Your task to perform on an android device: Search for top rated sushi restaurants on Maps Image 0: 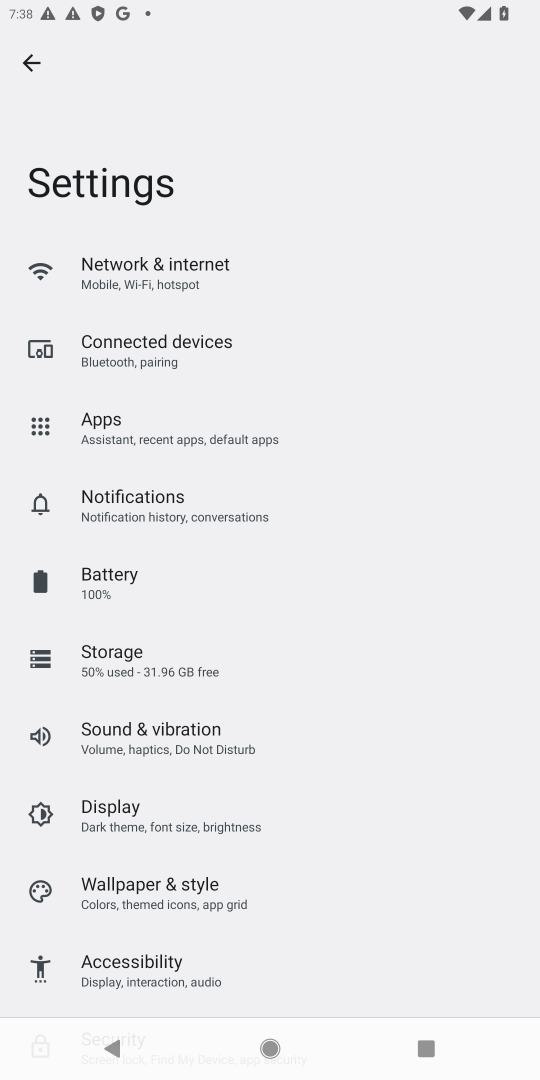
Step 0: press home button
Your task to perform on an android device: Search for top rated sushi restaurants on Maps Image 1: 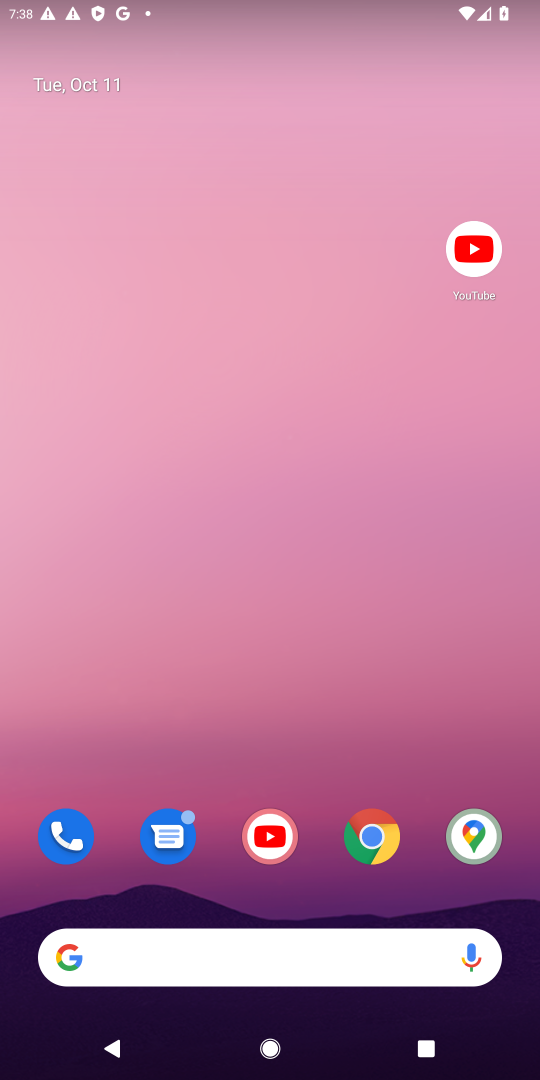
Step 1: drag from (262, 915) to (481, 155)
Your task to perform on an android device: Search for top rated sushi restaurants on Maps Image 2: 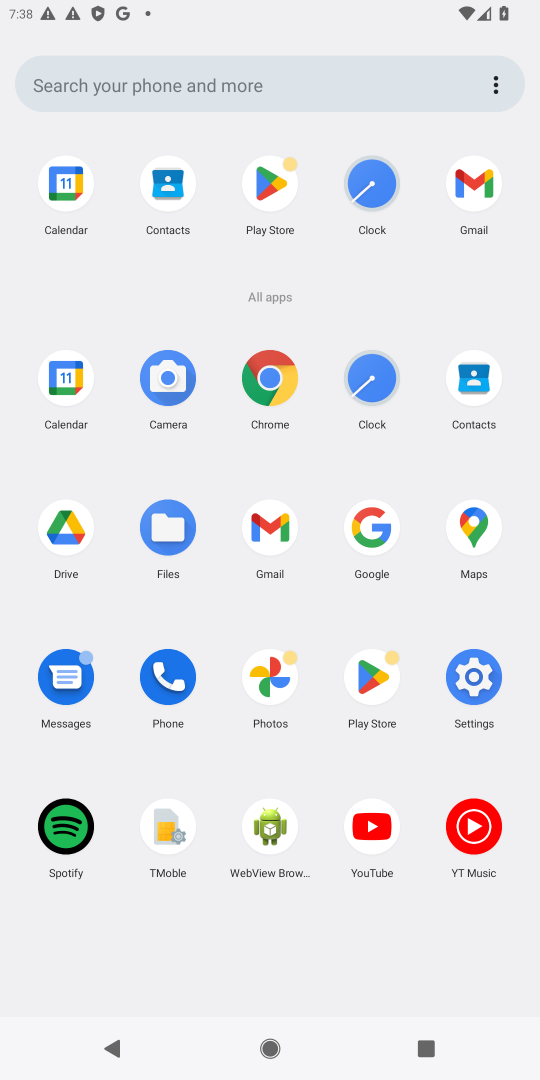
Step 2: click (476, 530)
Your task to perform on an android device: Search for top rated sushi restaurants on Maps Image 3: 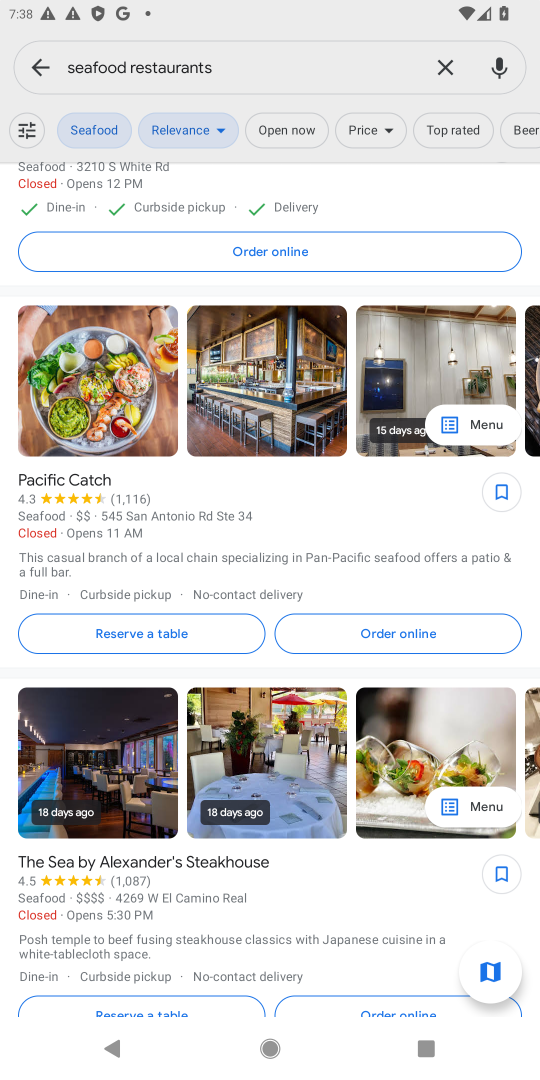
Step 3: click (443, 63)
Your task to perform on an android device: Search for top rated sushi restaurants on Maps Image 4: 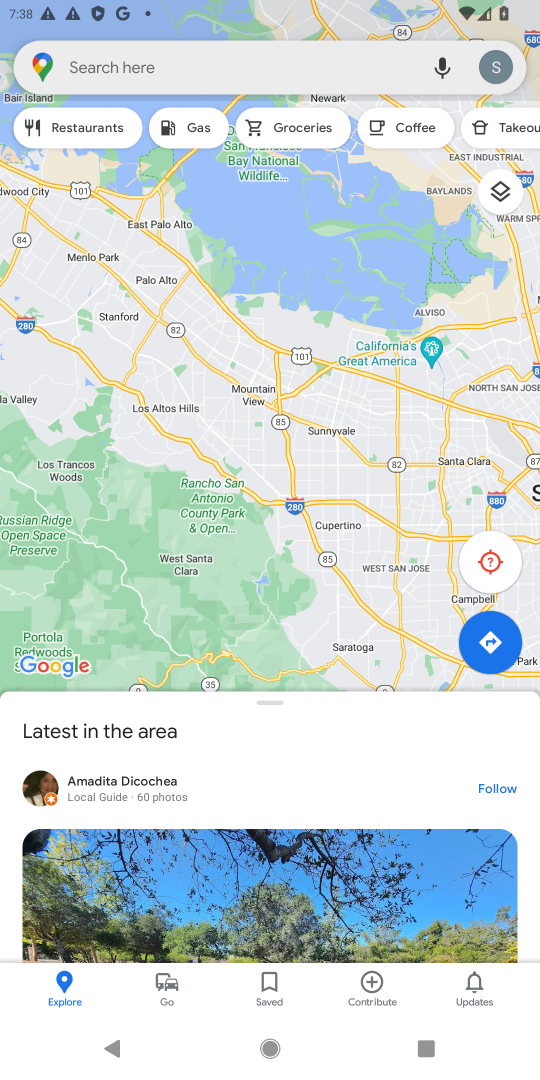
Step 4: click (147, 61)
Your task to perform on an android device: Search for top rated sushi restaurants on Maps Image 5: 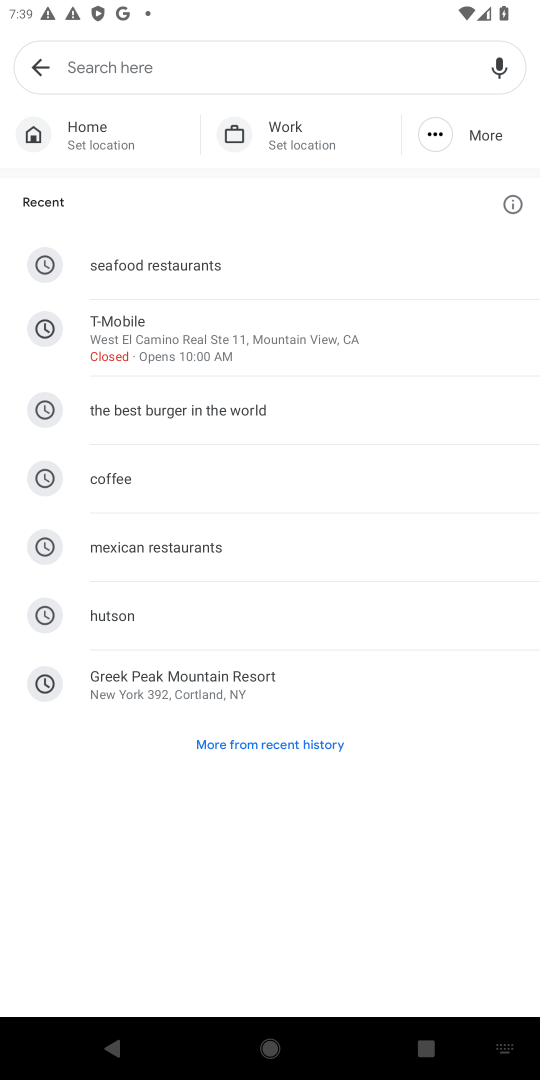
Step 5: type "sushi restaurants"
Your task to perform on an android device: Search for top rated sushi restaurants on Maps Image 6: 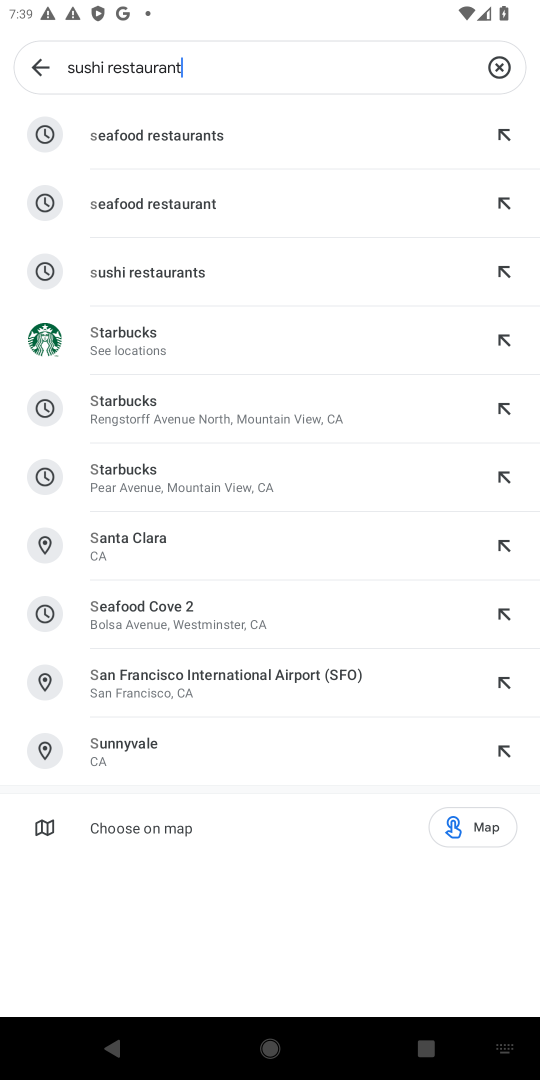
Step 6: press enter
Your task to perform on an android device: Search for top rated sushi restaurants on Maps Image 7: 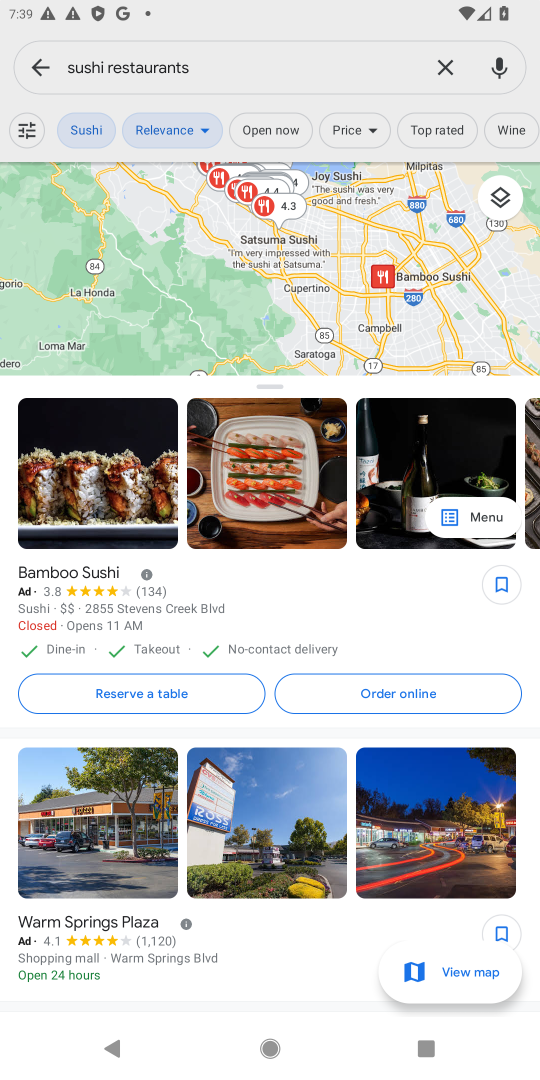
Step 7: task complete